Your task to perform on an android device: Show the shopping cart on amazon.com. Search for "logitech g pro" on amazon.com, select the first entry, add it to the cart, then select checkout. Image 0: 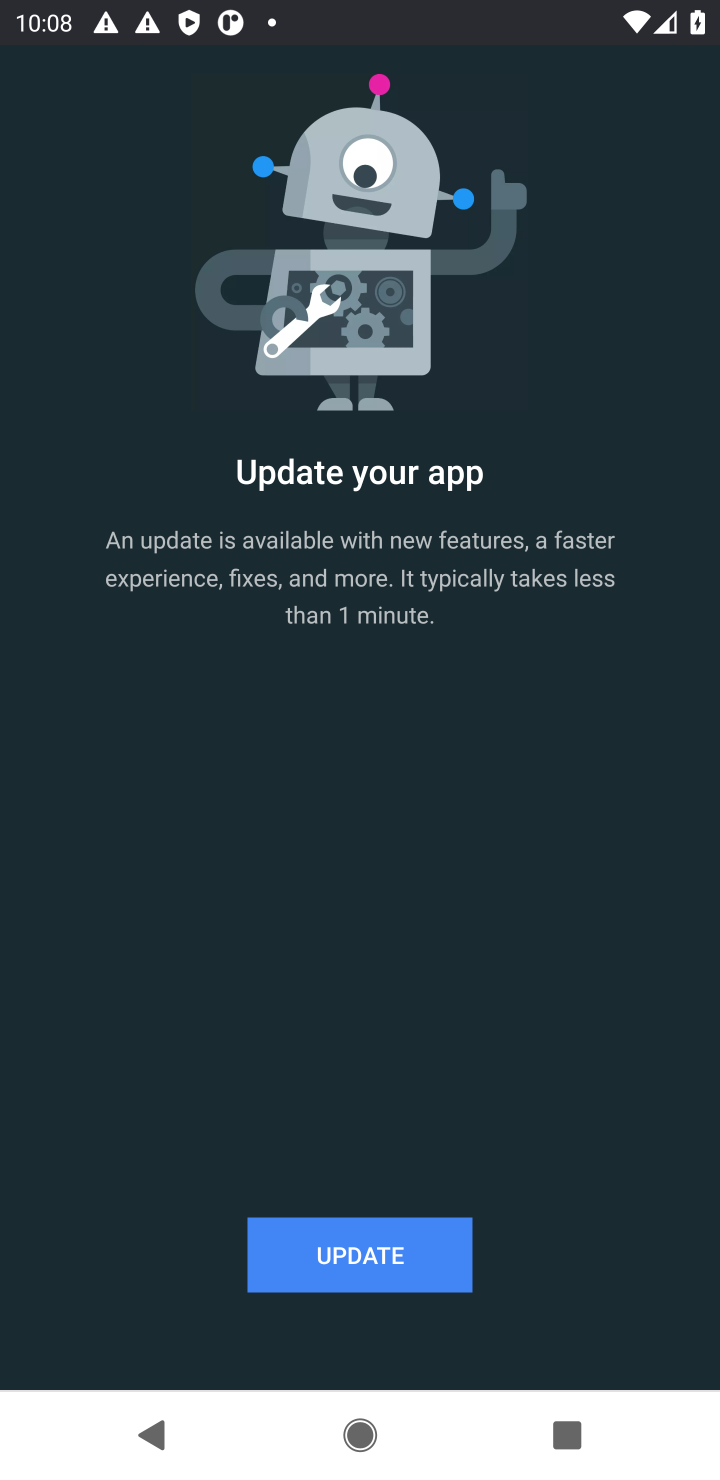
Step 0: press home button
Your task to perform on an android device: Show the shopping cart on amazon.com. Search for "logitech g pro" on amazon.com, select the first entry, add it to the cart, then select checkout. Image 1: 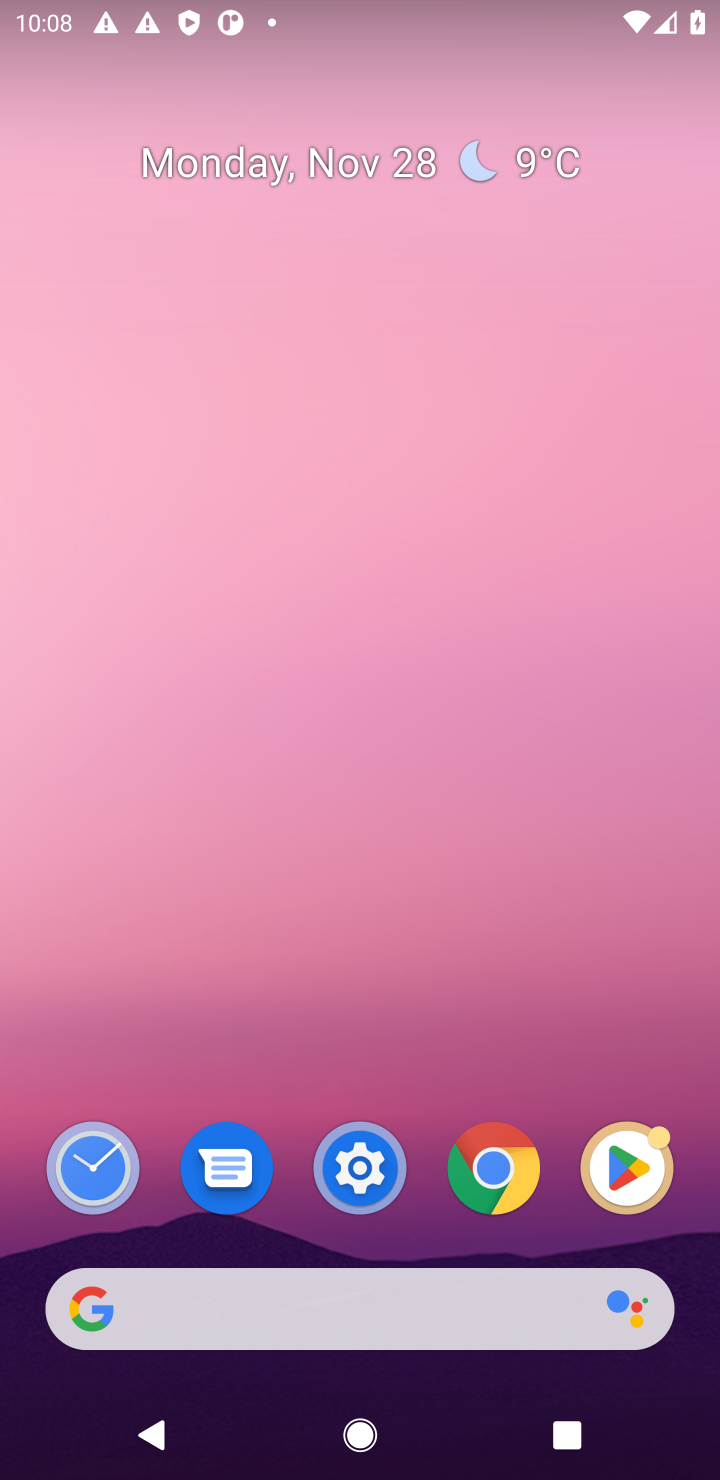
Step 1: click (276, 1287)
Your task to perform on an android device: Show the shopping cart on amazon.com. Search for "logitech g pro" on amazon.com, select the first entry, add it to the cart, then select checkout. Image 2: 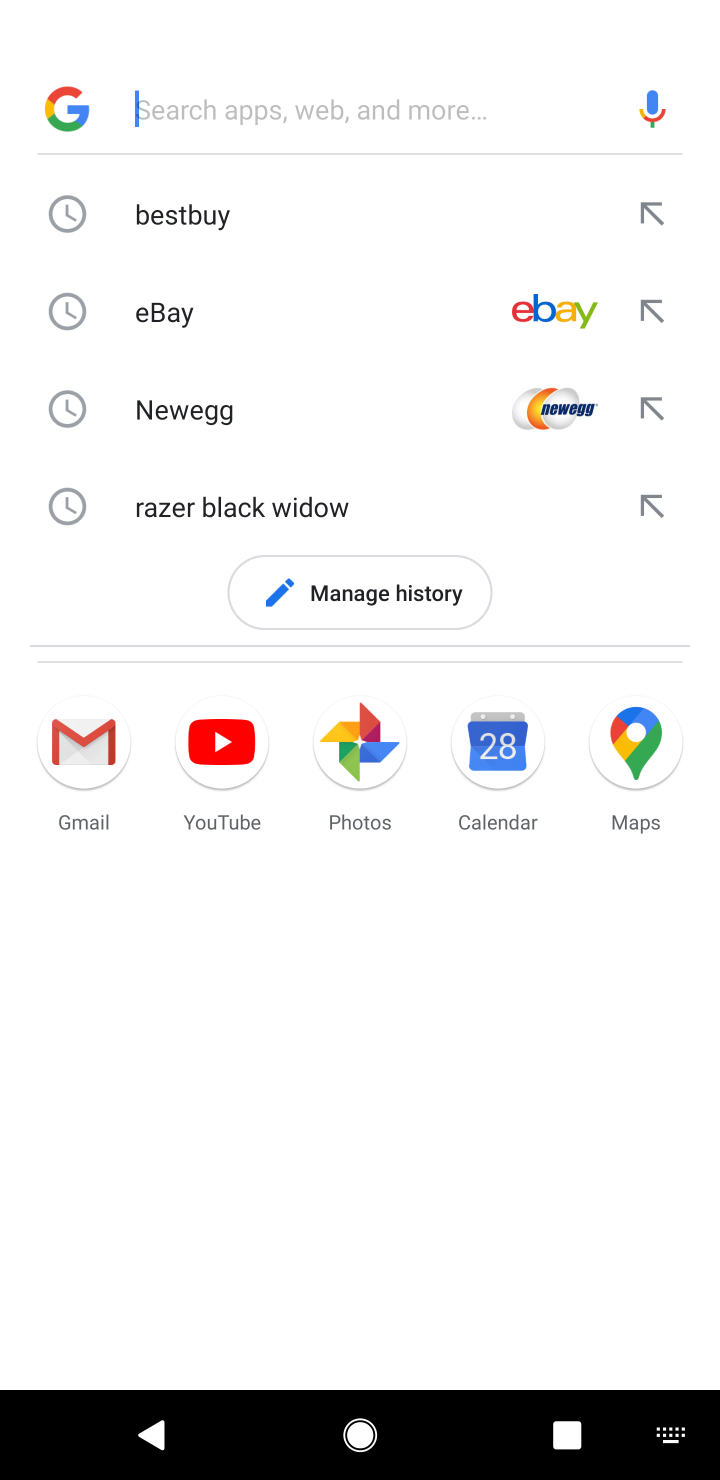
Step 2: type "amazon "
Your task to perform on an android device: Show the shopping cart on amazon.com. Search for "logitech g pro" on amazon.com, select the first entry, add it to the cart, then select checkout. Image 3: 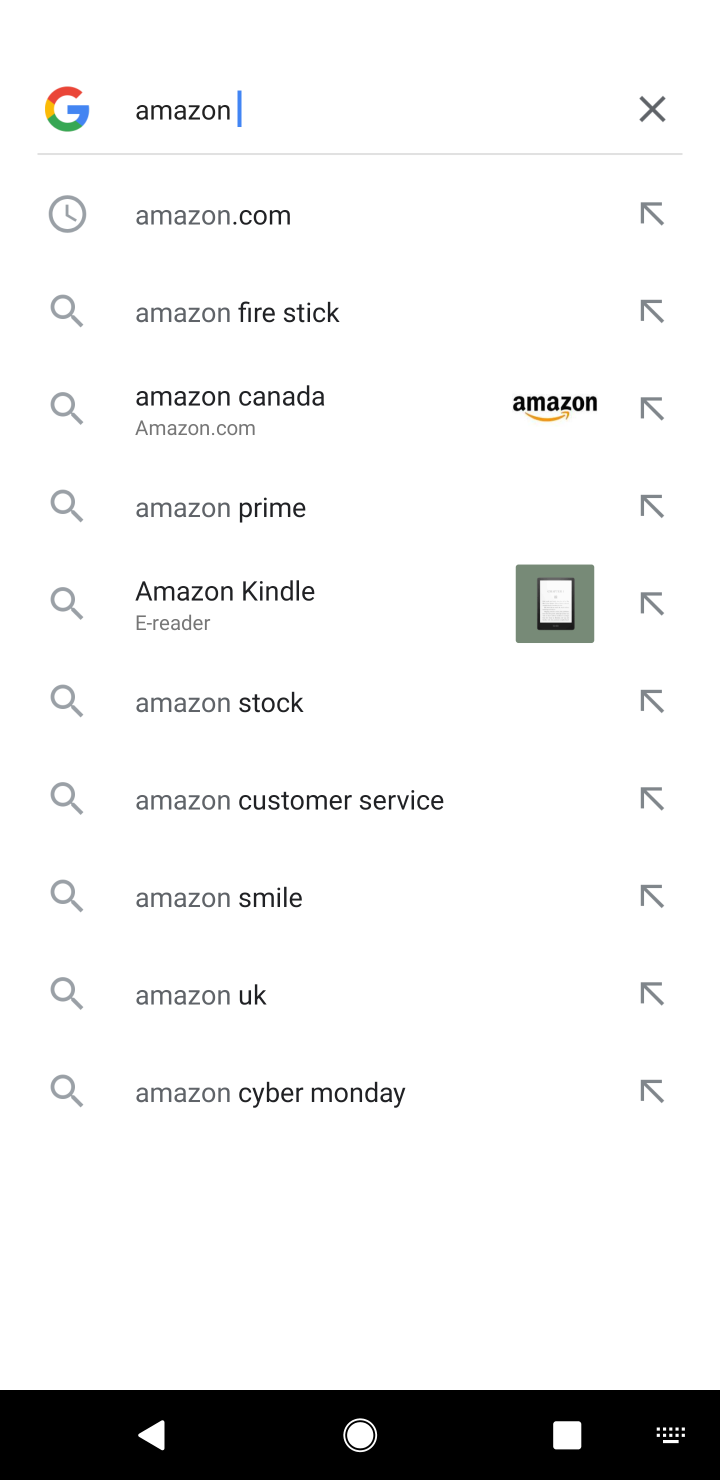
Step 3: click (209, 210)
Your task to perform on an android device: Show the shopping cart on amazon.com. Search for "logitech g pro" on amazon.com, select the first entry, add it to the cart, then select checkout. Image 4: 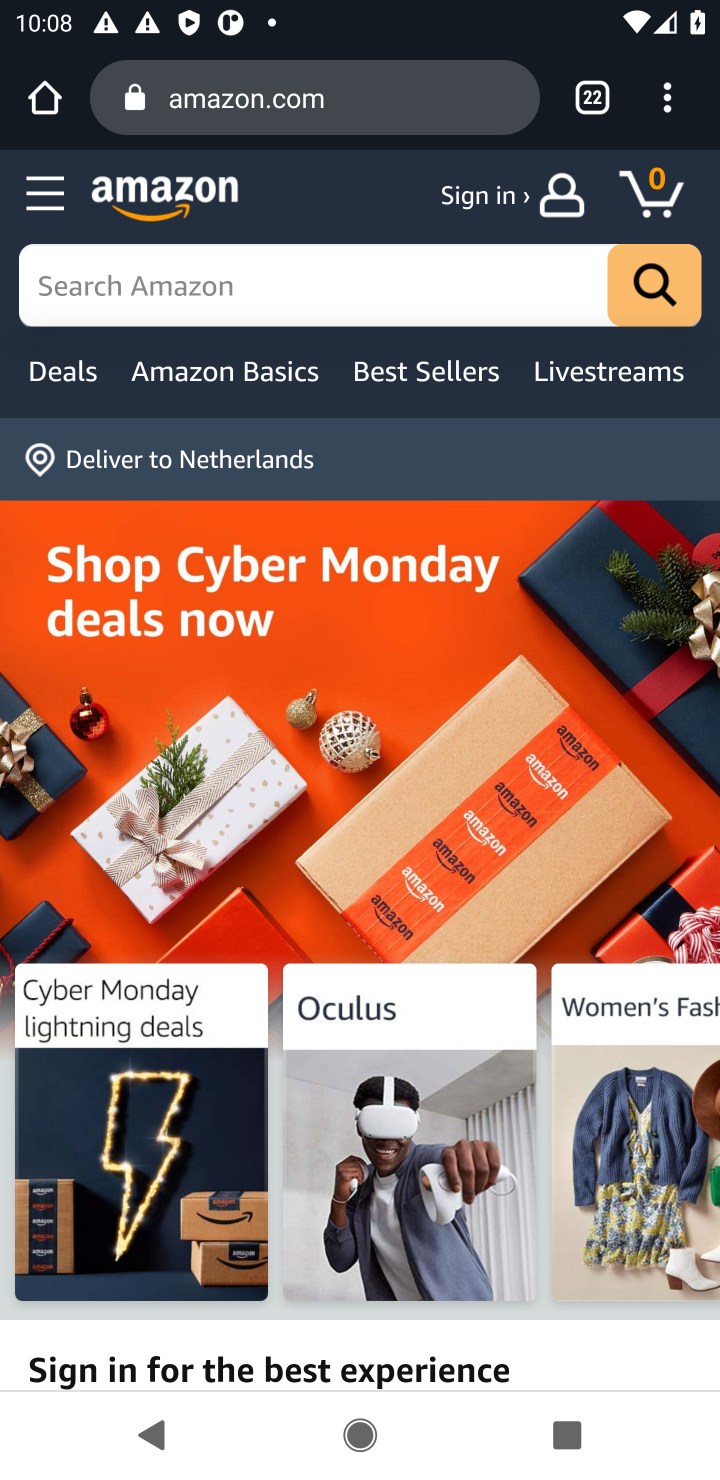
Step 4: click (264, 308)
Your task to perform on an android device: Show the shopping cart on amazon.com. Search for "logitech g pro" on amazon.com, select the first entry, add it to the cart, then select checkout. Image 5: 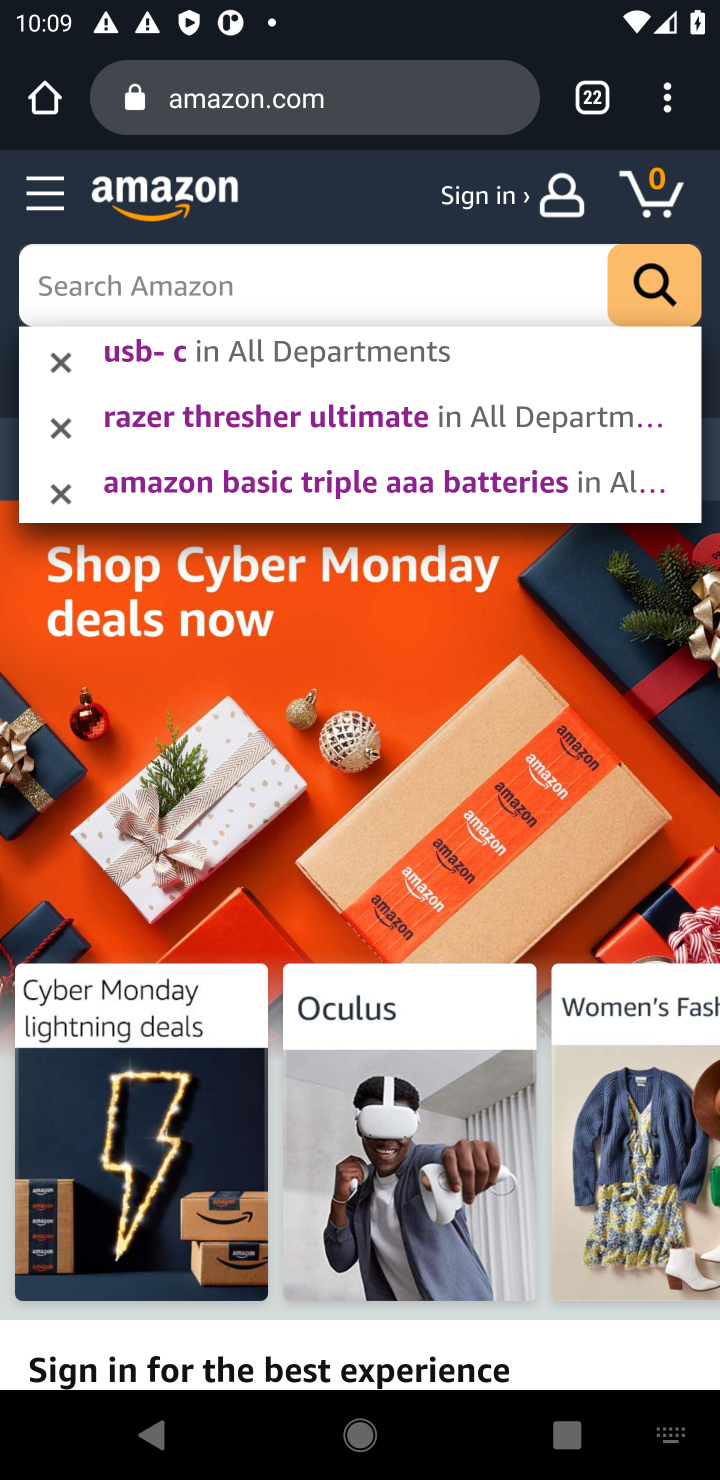
Step 5: type "logitech g pro"
Your task to perform on an android device: Show the shopping cart on amazon.com. Search for "logitech g pro" on amazon.com, select the first entry, add it to the cart, then select checkout. Image 6: 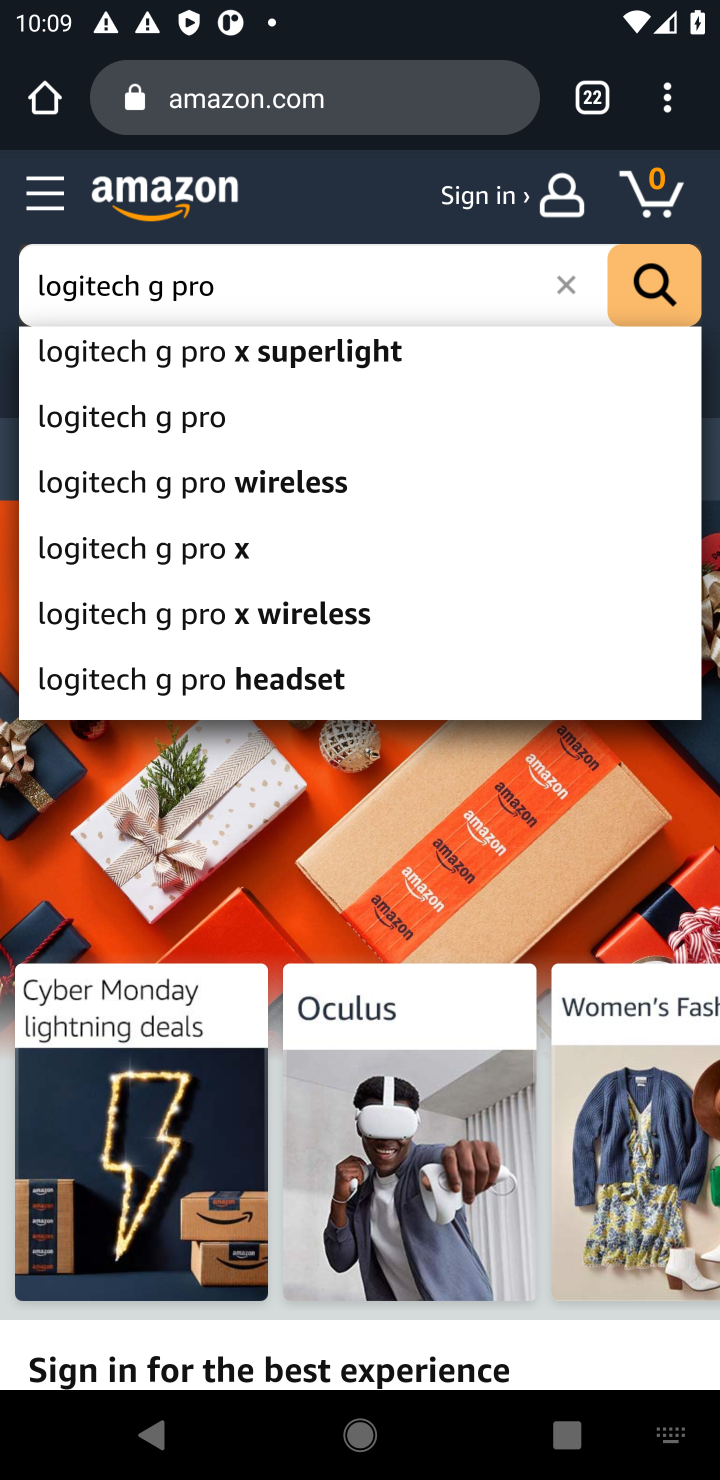
Step 6: click (666, 289)
Your task to perform on an android device: Show the shopping cart on amazon.com. Search for "logitech g pro" on amazon.com, select the first entry, add it to the cart, then select checkout. Image 7: 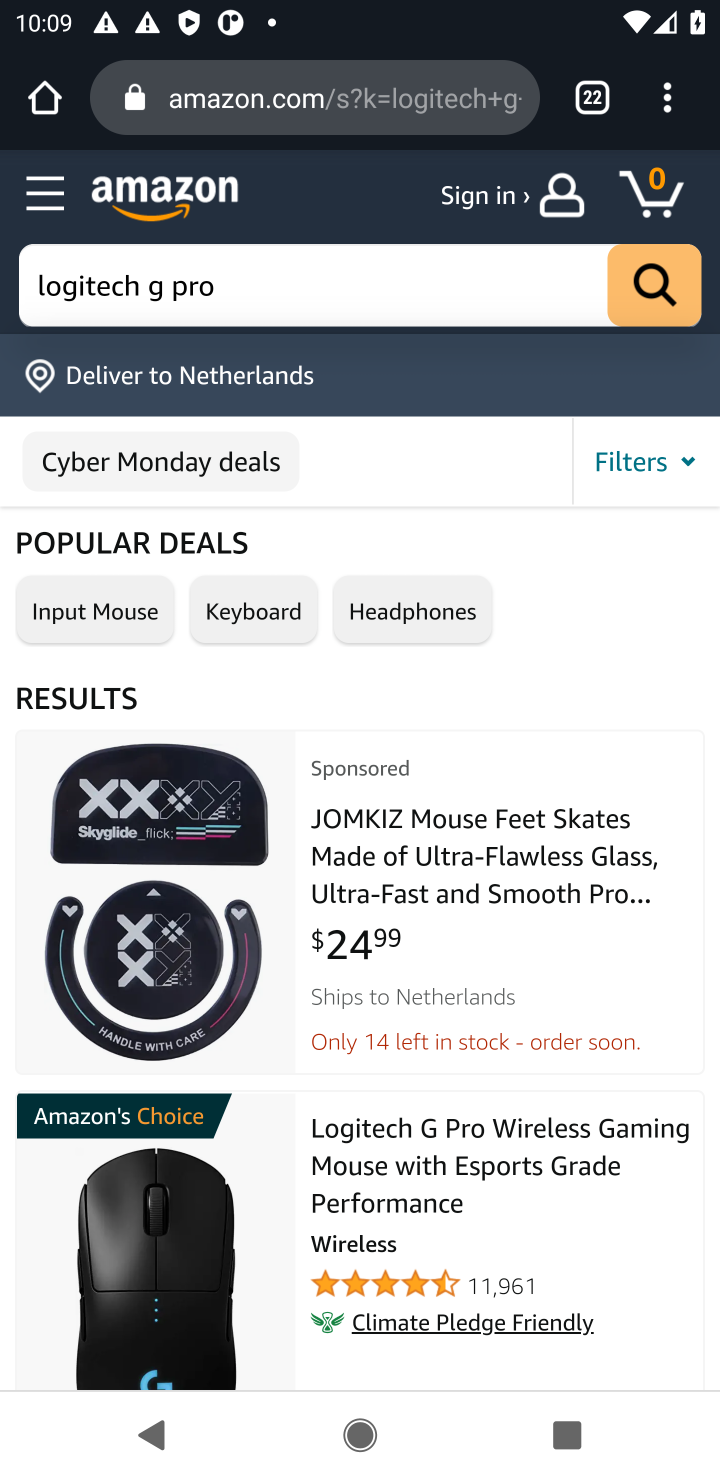
Step 7: click (541, 917)
Your task to perform on an android device: Show the shopping cart on amazon.com. Search for "logitech g pro" on amazon.com, select the first entry, add it to the cart, then select checkout. Image 8: 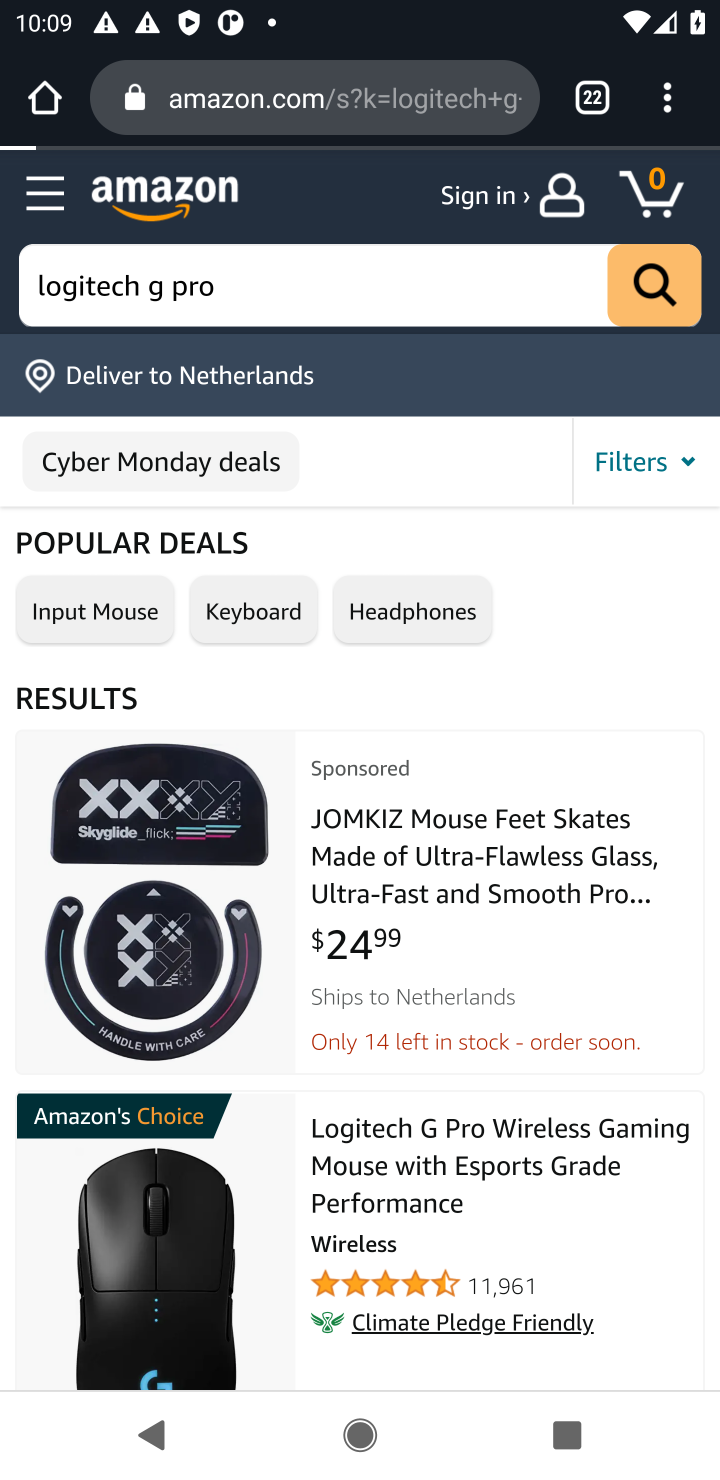
Step 8: task complete